Your task to perform on an android device: toggle priority inbox in the gmail app Image 0: 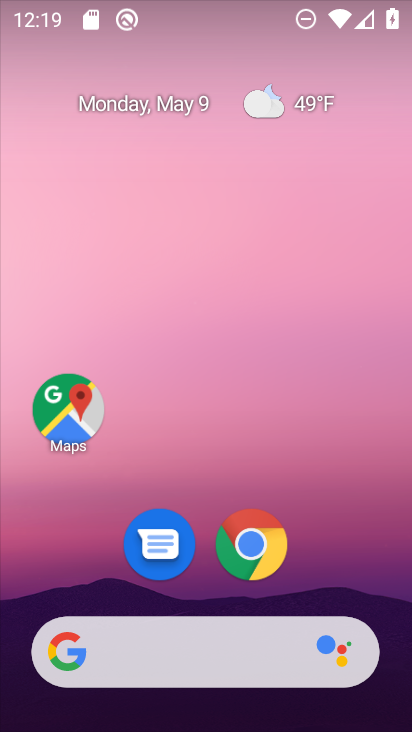
Step 0: drag from (342, 518) to (355, 146)
Your task to perform on an android device: toggle priority inbox in the gmail app Image 1: 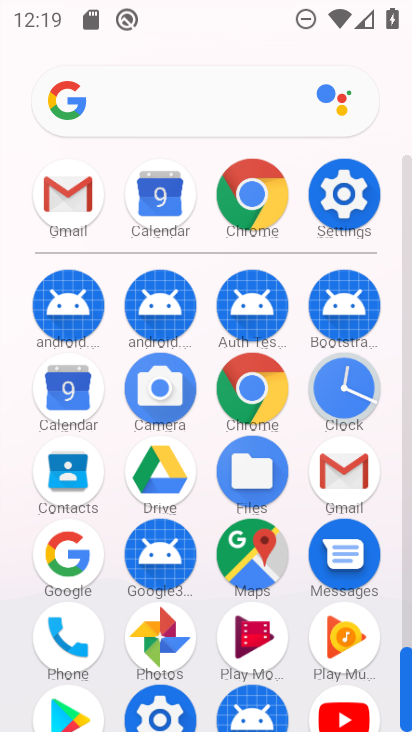
Step 1: click (350, 481)
Your task to perform on an android device: toggle priority inbox in the gmail app Image 2: 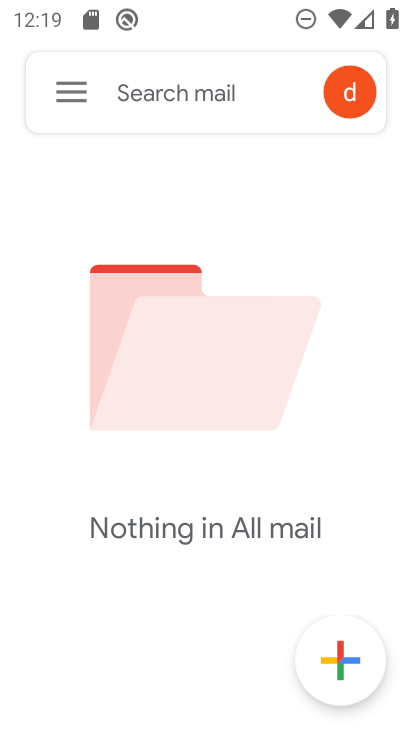
Step 2: click (56, 92)
Your task to perform on an android device: toggle priority inbox in the gmail app Image 3: 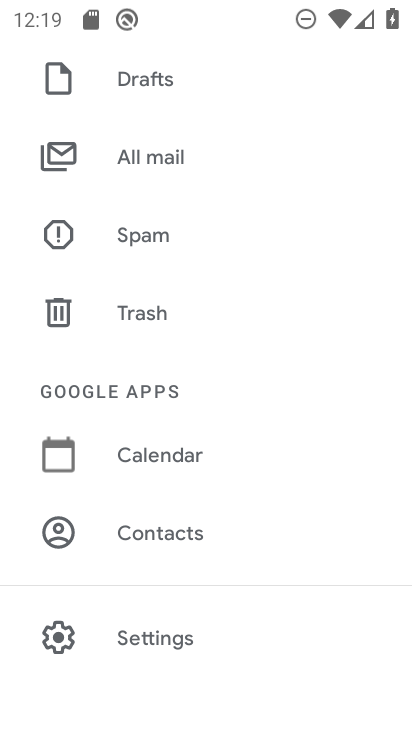
Step 3: drag from (214, 582) to (305, 121)
Your task to perform on an android device: toggle priority inbox in the gmail app Image 4: 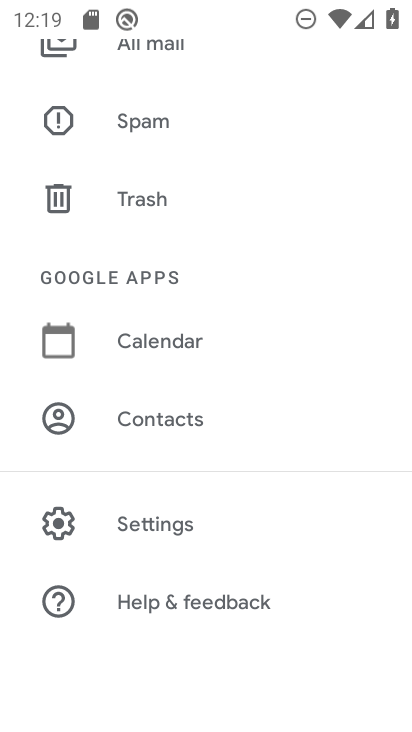
Step 4: click (161, 531)
Your task to perform on an android device: toggle priority inbox in the gmail app Image 5: 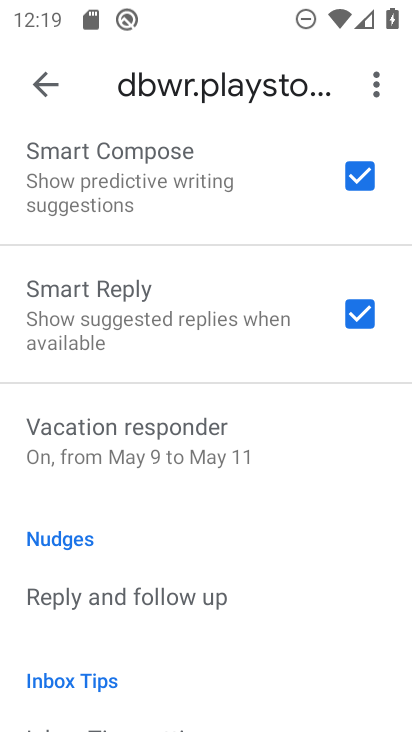
Step 5: drag from (239, 584) to (318, 112)
Your task to perform on an android device: toggle priority inbox in the gmail app Image 6: 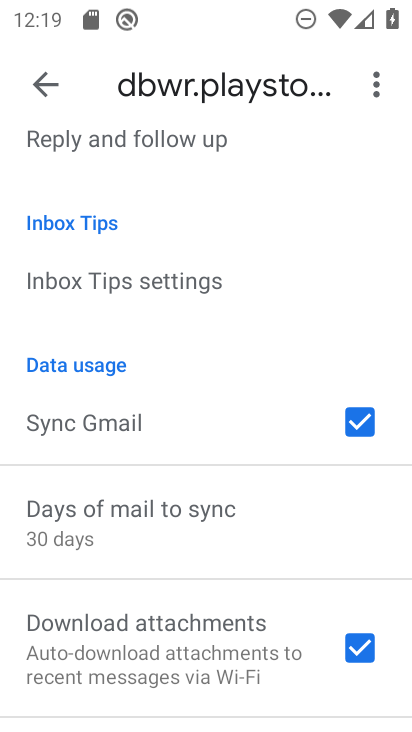
Step 6: drag from (229, 296) to (156, 632)
Your task to perform on an android device: toggle priority inbox in the gmail app Image 7: 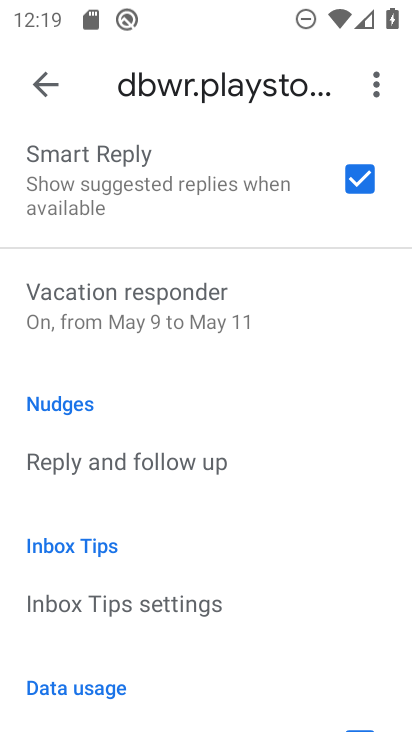
Step 7: drag from (204, 233) to (174, 591)
Your task to perform on an android device: toggle priority inbox in the gmail app Image 8: 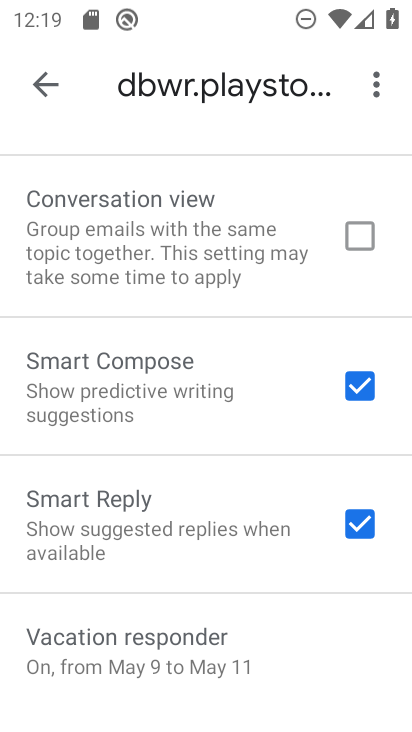
Step 8: drag from (238, 201) to (216, 634)
Your task to perform on an android device: toggle priority inbox in the gmail app Image 9: 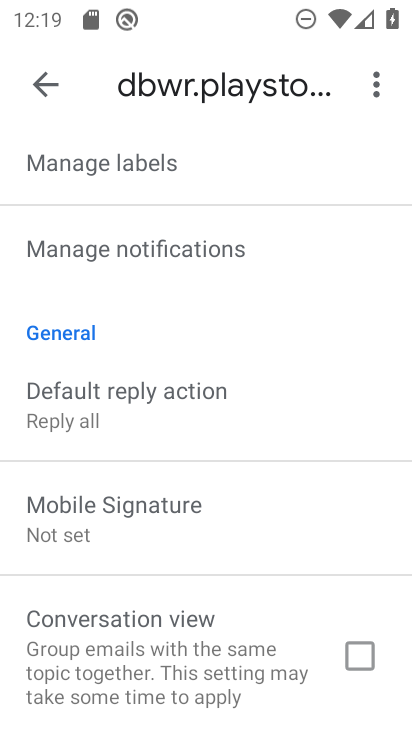
Step 9: drag from (226, 186) to (183, 611)
Your task to perform on an android device: toggle priority inbox in the gmail app Image 10: 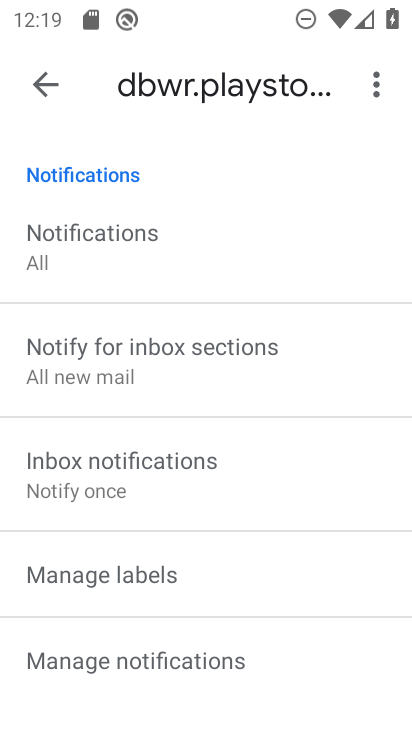
Step 10: drag from (253, 230) to (212, 563)
Your task to perform on an android device: toggle priority inbox in the gmail app Image 11: 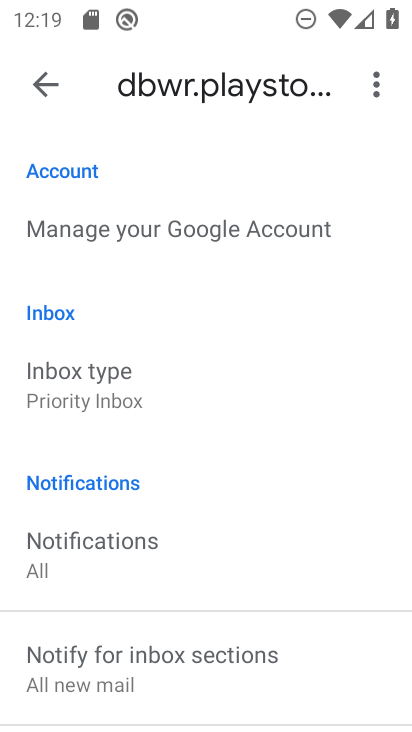
Step 11: drag from (232, 267) to (241, 593)
Your task to perform on an android device: toggle priority inbox in the gmail app Image 12: 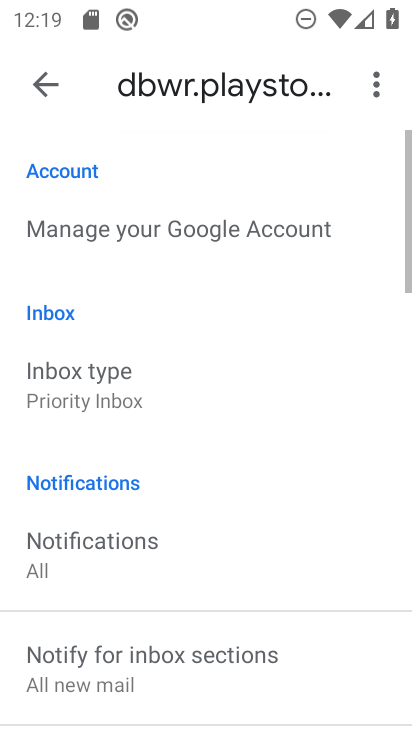
Step 12: drag from (241, 592) to (272, 232)
Your task to perform on an android device: toggle priority inbox in the gmail app Image 13: 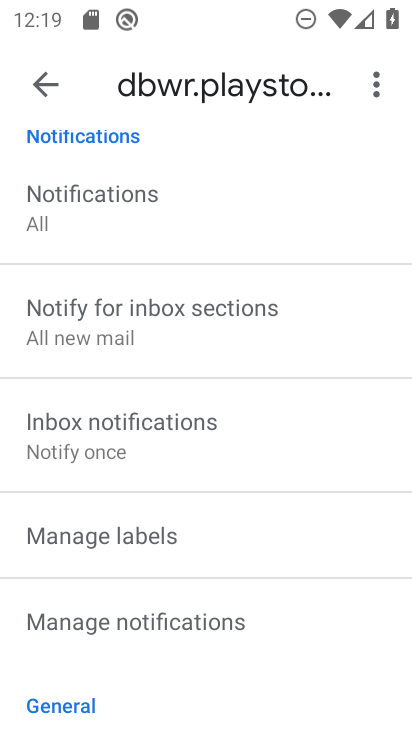
Step 13: drag from (182, 550) to (277, 150)
Your task to perform on an android device: toggle priority inbox in the gmail app Image 14: 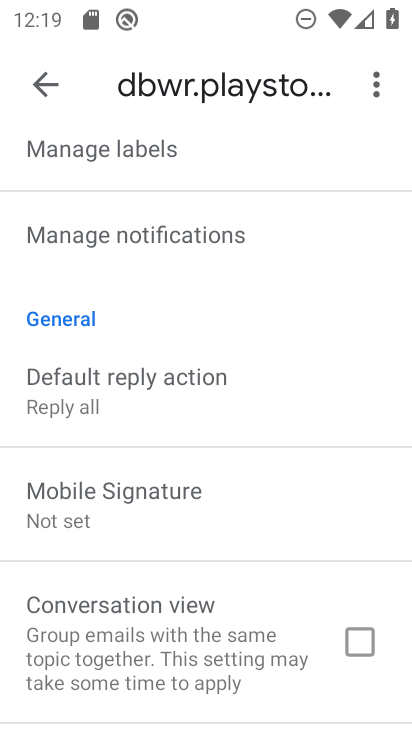
Step 14: drag from (181, 534) to (295, 119)
Your task to perform on an android device: toggle priority inbox in the gmail app Image 15: 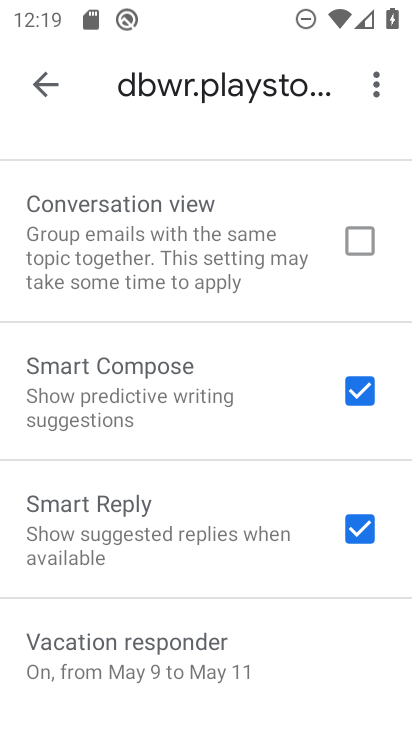
Step 15: drag from (170, 592) to (272, 224)
Your task to perform on an android device: toggle priority inbox in the gmail app Image 16: 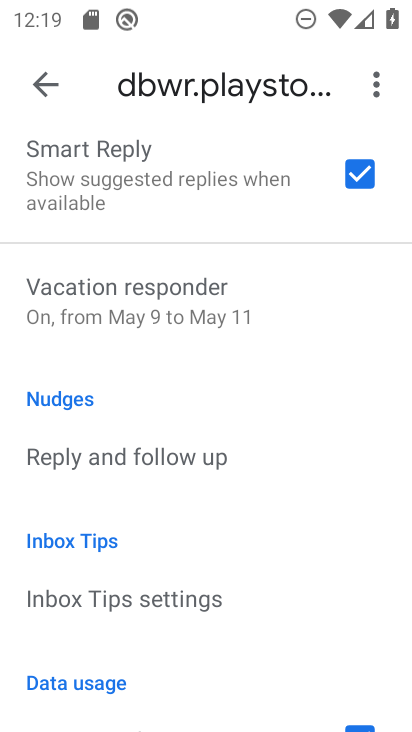
Step 16: drag from (215, 569) to (332, 149)
Your task to perform on an android device: toggle priority inbox in the gmail app Image 17: 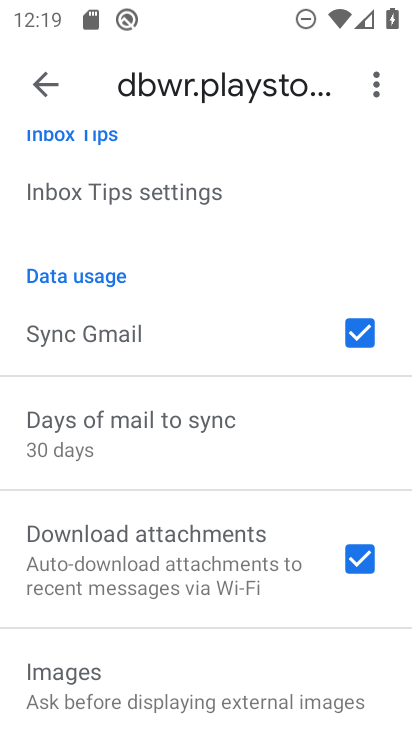
Step 17: drag from (180, 605) to (301, 148)
Your task to perform on an android device: toggle priority inbox in the gmail app Image 18: 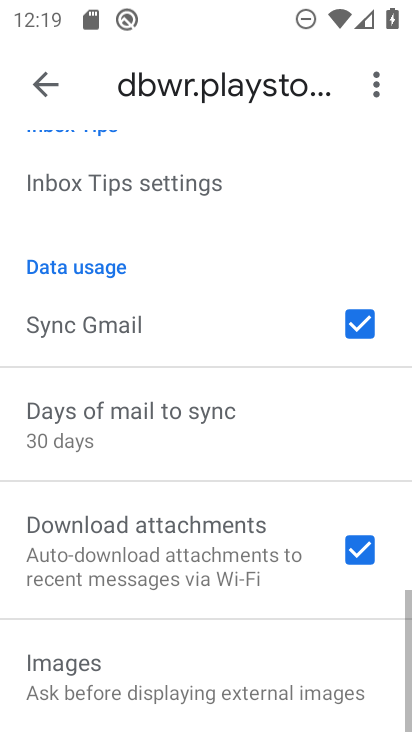
Step 18: drag from (180, 594) to (272, 208)
Your task to perform on an android device: toggle priority inbox in the gmail app Image 19: 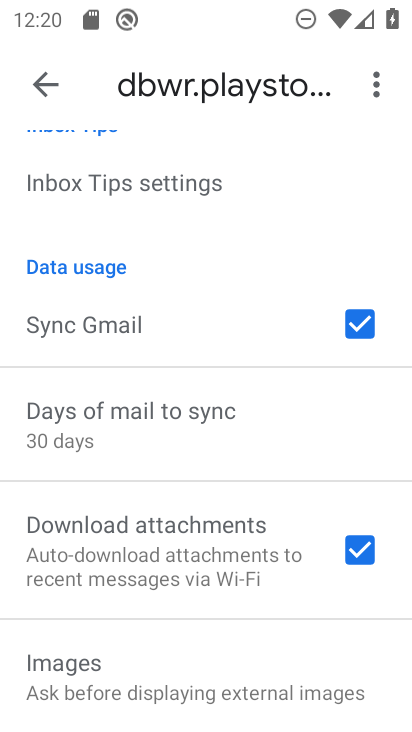
Step 19: drag from (247, 290) to (195, 604)
Your task to perform on an android device: toggle priority inbox in the gmail app Image 20: 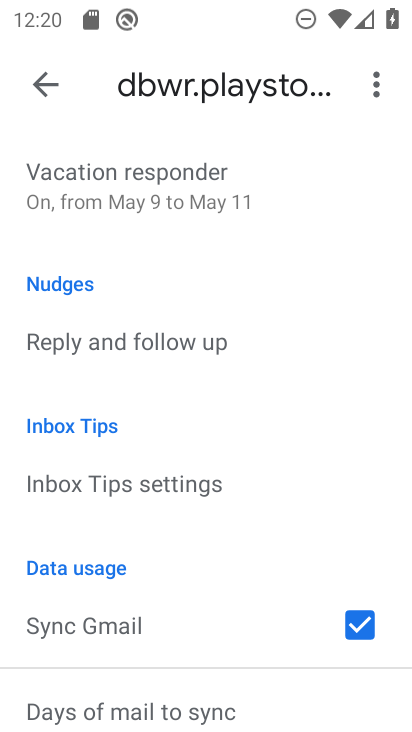
Step 20: drag from (243, 181) to (158, 608)
Your task to perform on an android device: toggle priority inbox in the gmail app Image 21: 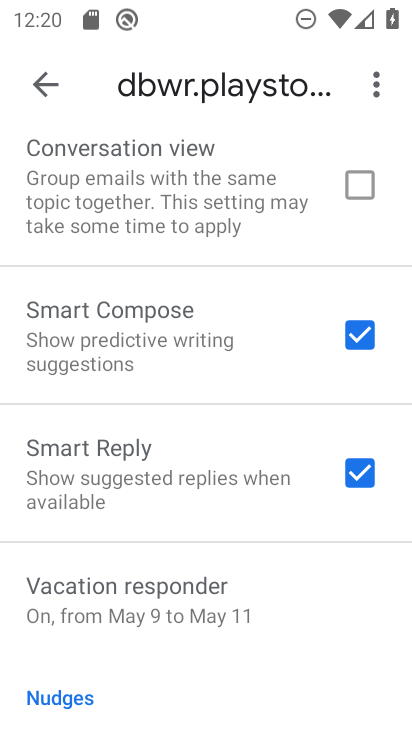
Step 21: drag from (216, 246) to (160, 634)
Your task to perform on an android device: toggle priority inbox in the gmail app Image 22: 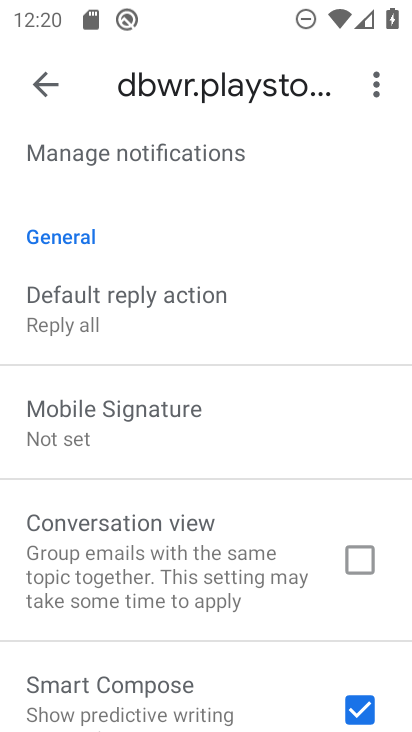
Step 22: drag from (206, 307) to (165, 599)
Your task to perform on an android device: toggle priority inbox in the gmail app Image 23: 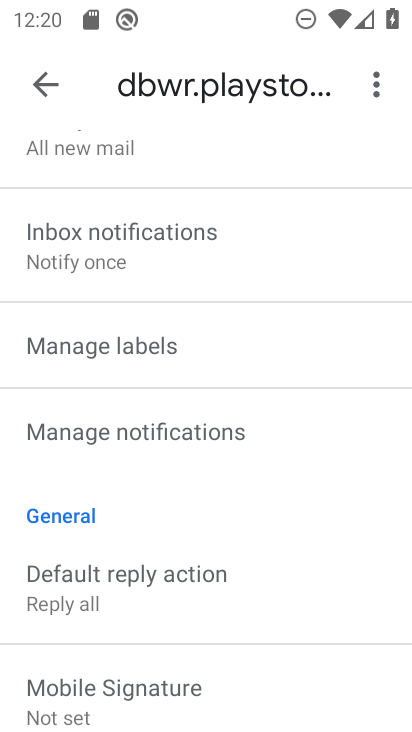
Step 23: drag from (243, 349) to (189, 608)
Your task to perform on an android device: toggle priority inbox in the gmail app Image 24: 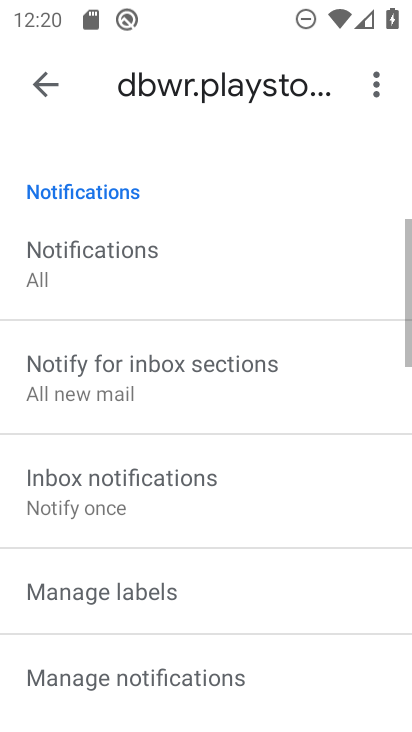
Step 24: drag from (189, 626) to (262, 215)
Your task to perform on an android device: toggle priority inbox in the gmail app Image 25: 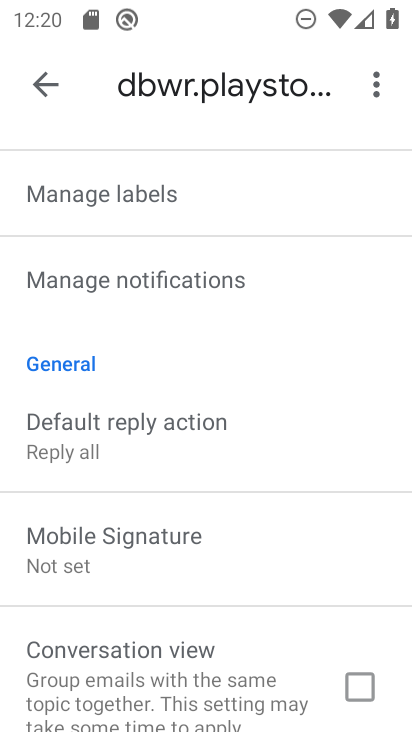
Step 25: drag from (181, 554) to (241, 226)
Your task to perform on an android device: toggle priority inbox in the gmail app Image 26: 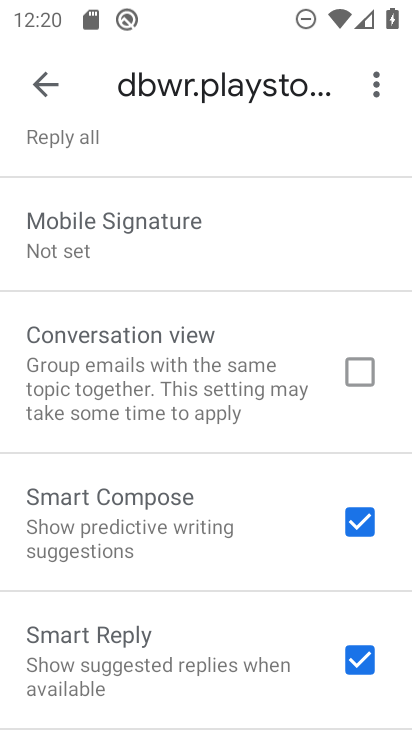
Step 26: drag from (164, 565) to (237, 120)
Your task to perform on an android device: toggle priority inbox in the gmail app Image 27: 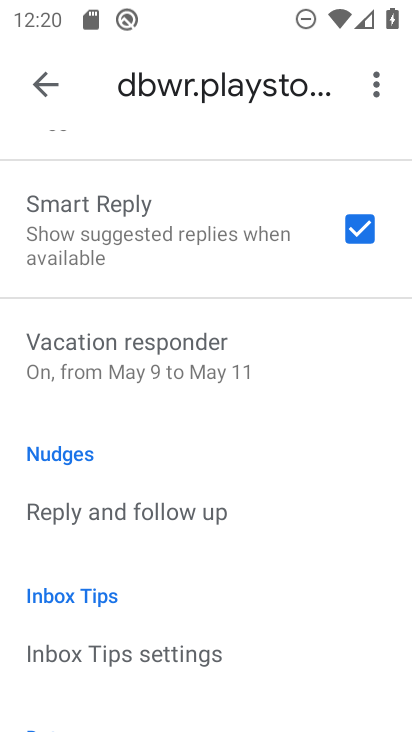
Step 27: drag from (157, 531) to (241, 171)
Your task to perform on an android device: toggle priority inbox in the gmail app Image 28: 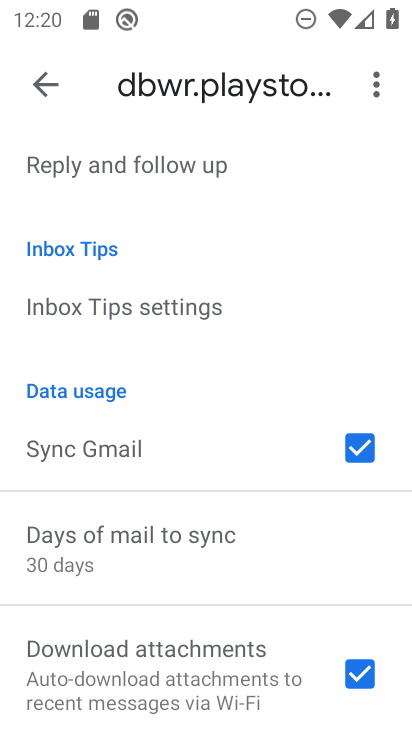
Step 28: drag from (227, 276) to (152, 595)
Your task to perform on an android device: toggle priority inbox in the gmail app Image 29: 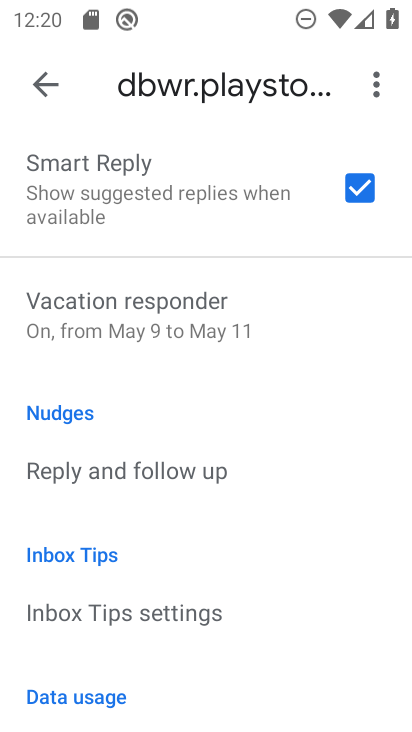
Step 29: drag from (183, 606) to (260, 266)
Your task to perform on an android device: toggle priority inbox in the gmail app Image 30: 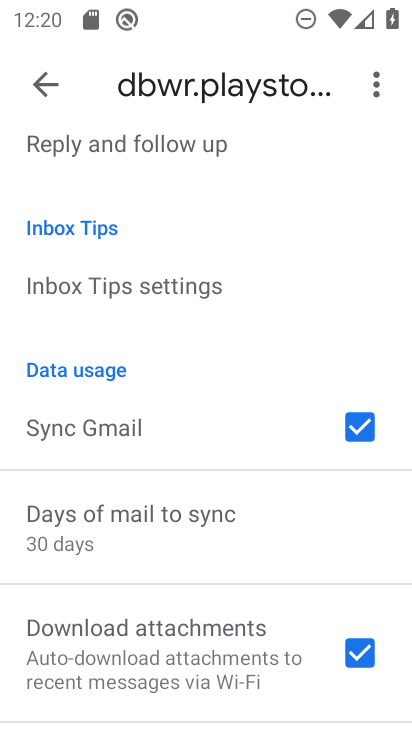
Step 30: drag from (176, 621) to (226, 171)
Your task to perform on an android device: toggle priority inbox in the gmail app Image 31: 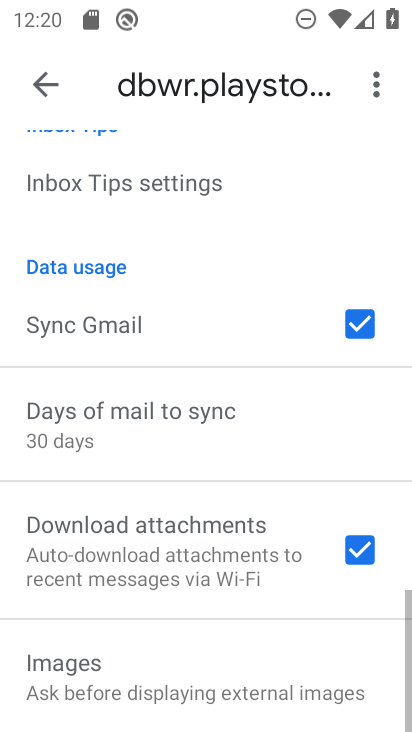
Step 31: drag from (229, 223) to (179, 651)
Your task to perform on an android device: toggle priority inbox in the gmail app Image 32: 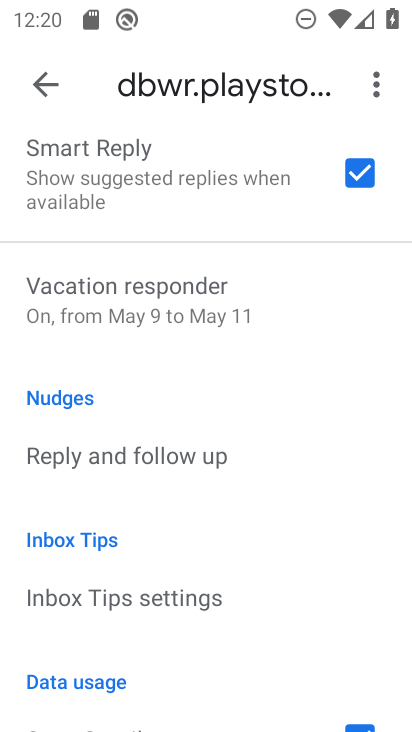
Step 32: drag from (246, 226) to (210, 624)
Your task to perform on an android device: toggle priority inbox in the gmail app Image 33: 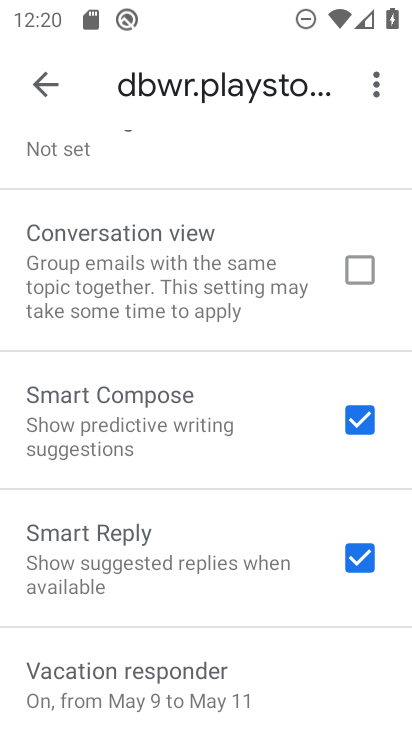
Step 33: drag from (232, 328) to (182, 632)
Your task to perform on an android device: toggle priority inbox in the gmail app Image 34: 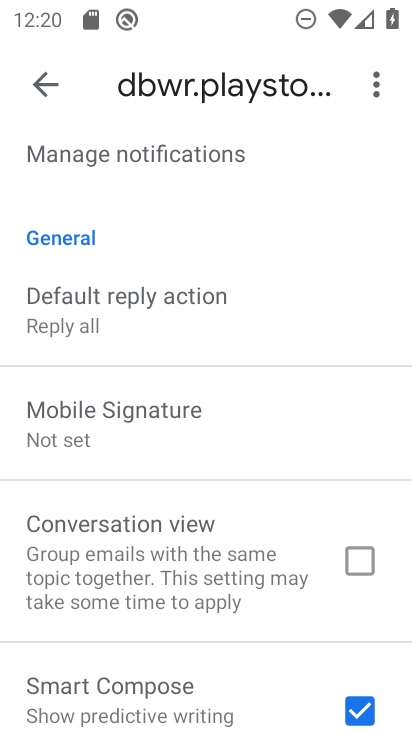
Step 34: drag from (225, 276) to (185, 595)
Your task to perform on an android device: toggle priority inbox in the gmail app Image 35: 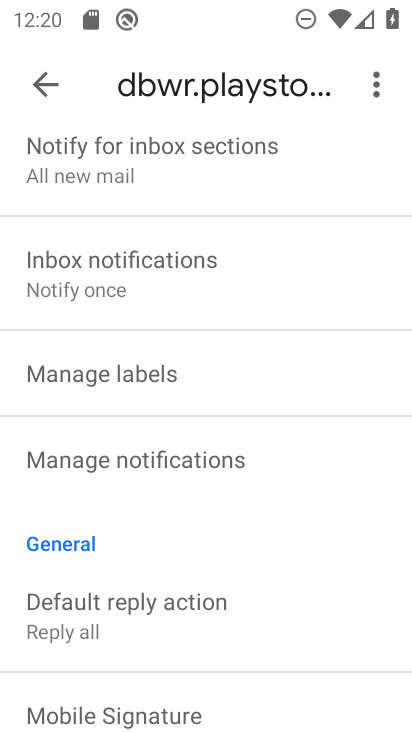
Step 35: drag from (225, 170) to (198, 649)
Your task to perform on an android device: toggle priority inbox in the gmail app Image 36: 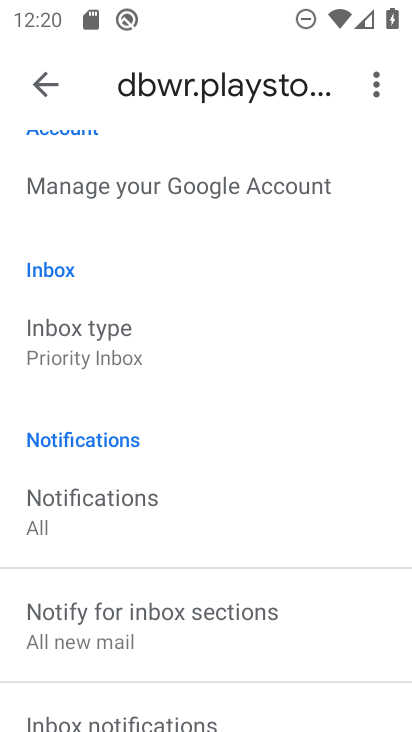
Step 36: click (111, 362)
Your task to perform on an android device: toggle priority inbox in the gmail app Image 37: 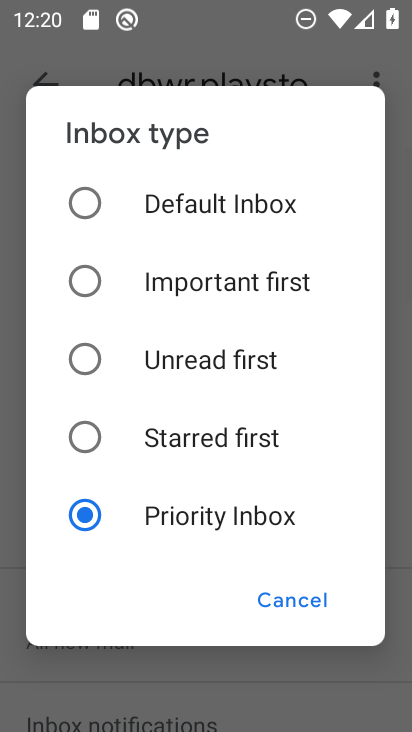
Step 37: click (151, 207)
Your task to perform on an android device: toggle priority inbox in the gmail app Image 38: 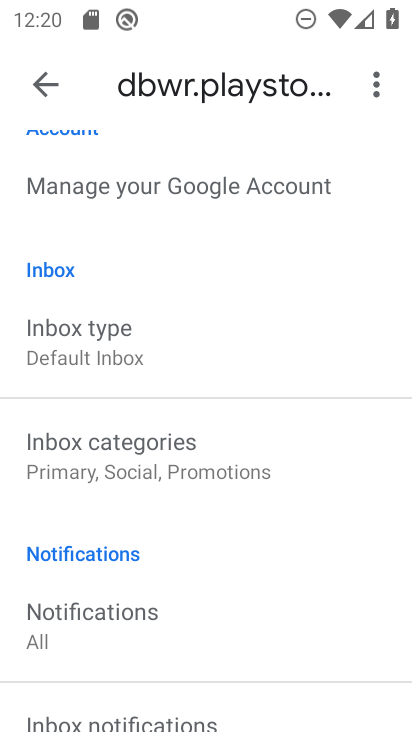
Step 38: task complete